Your task to perform on an android device: Open Google Maps and go to "Timeline" Image 0: 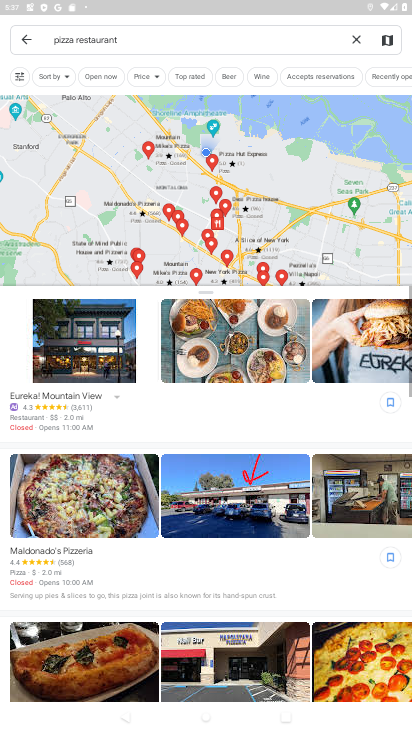
Step 0: press home button
Your task to perform on an android device: Open Google Maps and go to "Timeline" Image 1: 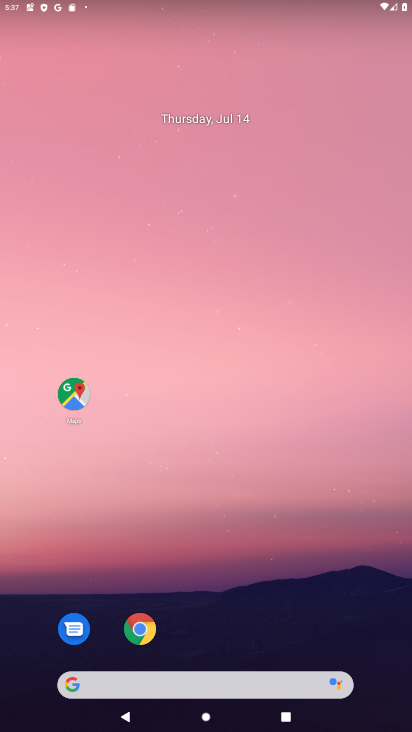
Step 1: drag from (310, 562) to (299, 0)
Your task to perform on an android device: Open Google Maps and go to "Timeline" Image 2: 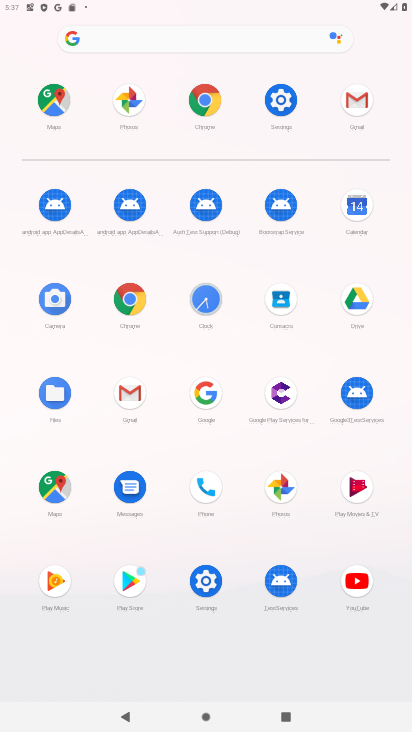
Step 2: click (65, 488)
Your task to perform on an android device: Open Google Maps and go to "Timeline" Image 3: 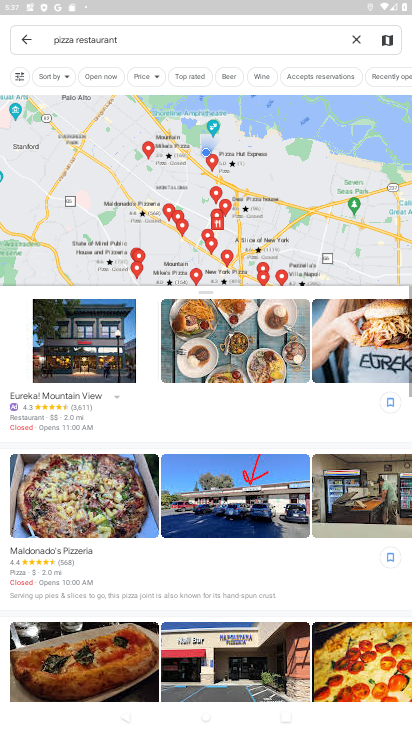
Step 3: press back button
Your task to perform on an android device: Open Google Maps and go to "Timeline" Image 4: 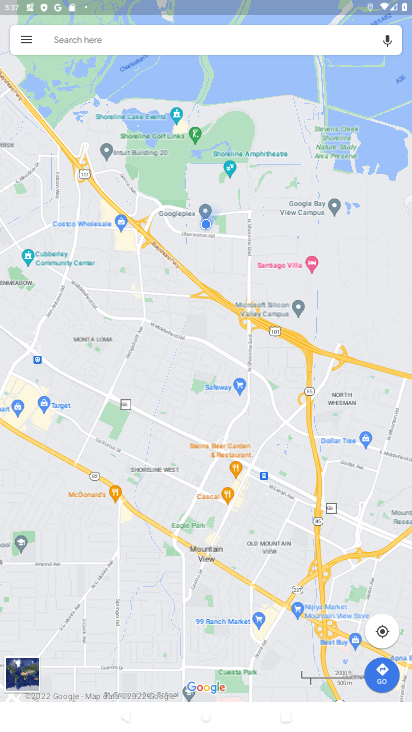
Step 4: click (19, 35)
Your task to perform on an android device: Open Google Maps and go to "Timeline" Image 5: 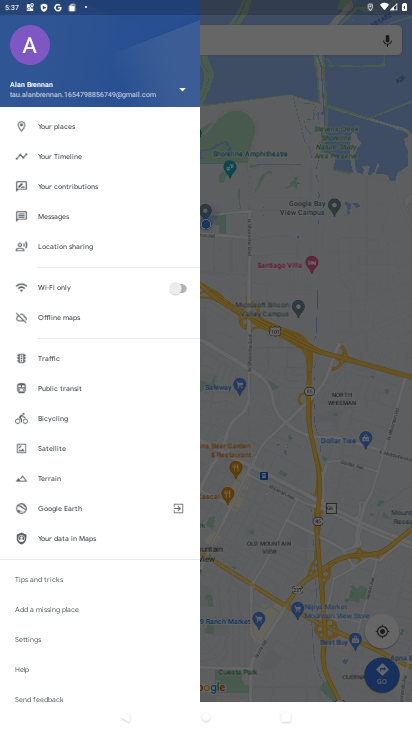
Step 5: click (74, 157)
Your task to perform on an android device: Open Google Maps and go to "Timeline" Image 6: 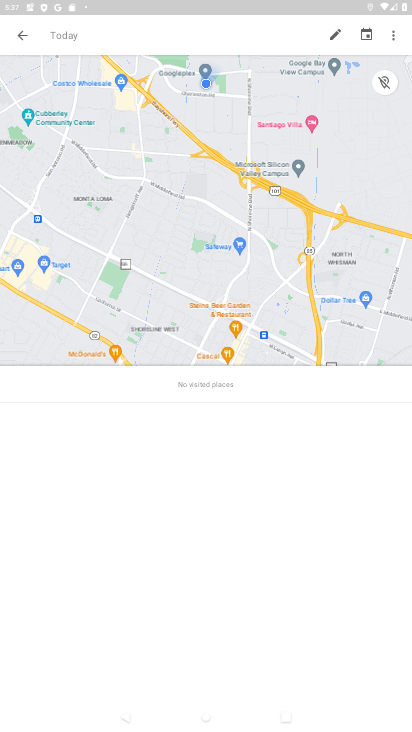
Step 6: task complete